Your task to perform on an android device: turn pop-ups on in chrome Image 0: 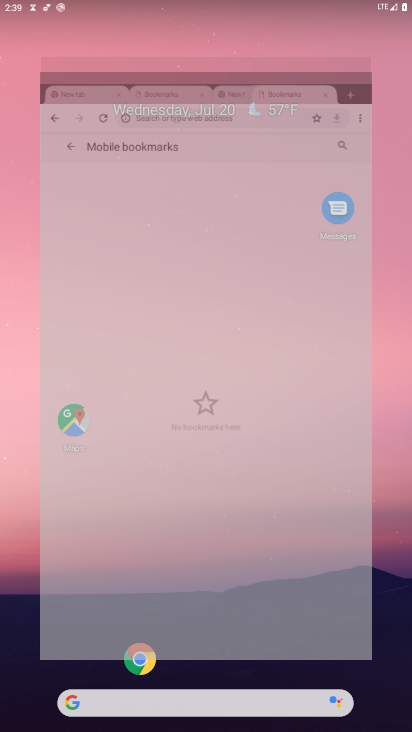
Step 0: drag from (15, 694) to (302, 119)
Your task to perform on an android device: turn pop-ups on in chrome Image 1: 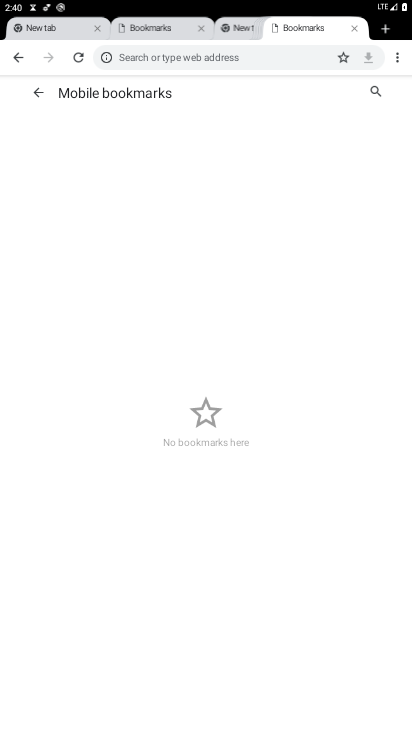
Step 1: press home button
Your task to perform on an android device: turn pop-ups on in chrome Image 2: 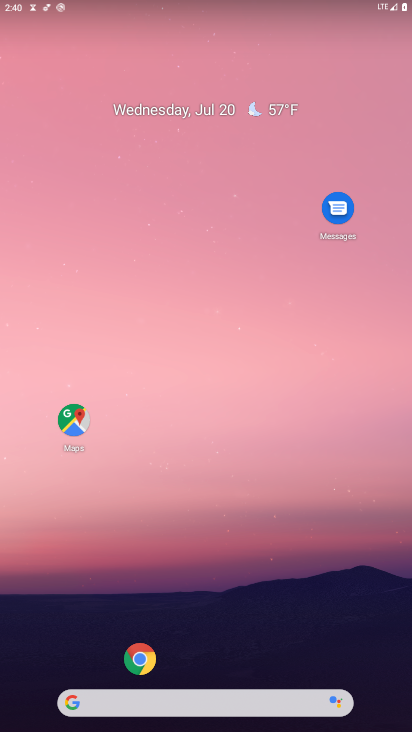
Step 2: click (135, 662)
Your task to perform on an android device: turn pop-ups on in chrome Image 3: 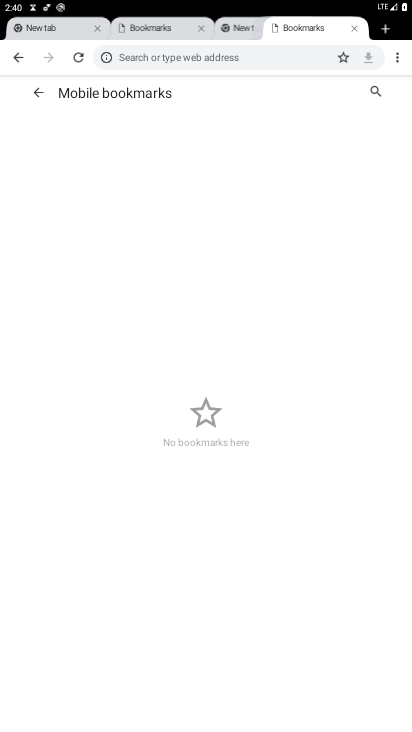
Step 3: click (397, 57)
Your task to perform on an android device: turn pop-ups on in chrome Image 4: 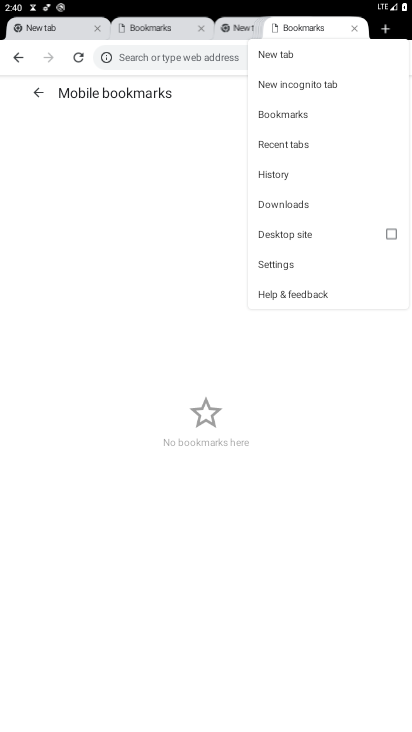
Step 4: click (297, 261)
Your task to perform on an android device: turn pop-ups on in chrome Image 5: 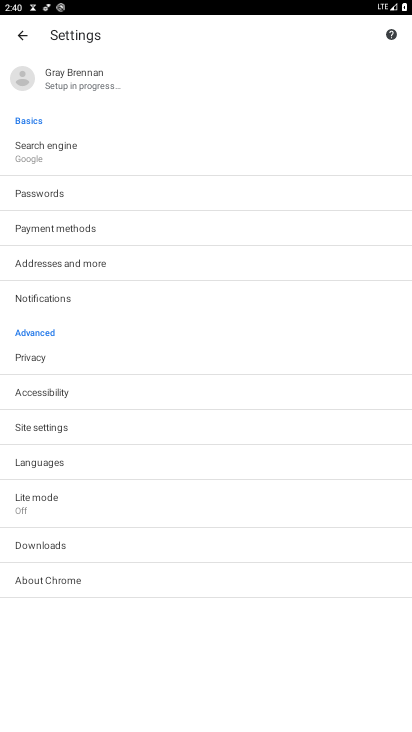
Step 5: click (69, 423)
Your task to perform on an android device: turn pop-ups on in chrome Image 6: 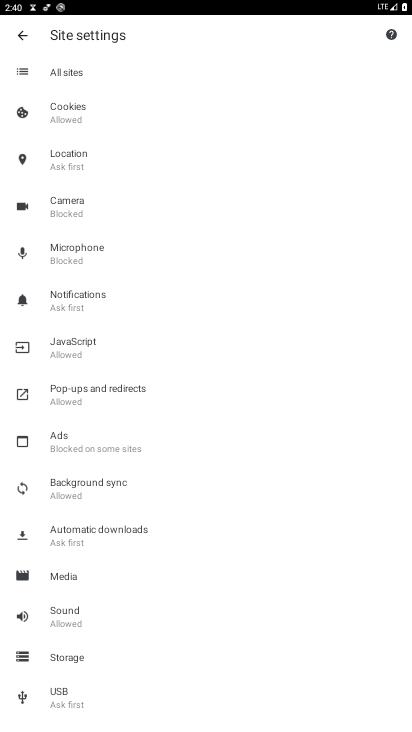
Step 6: click (76, 392)
Your task to perform on an android device: turn pop-ups on in chrome Image 7: 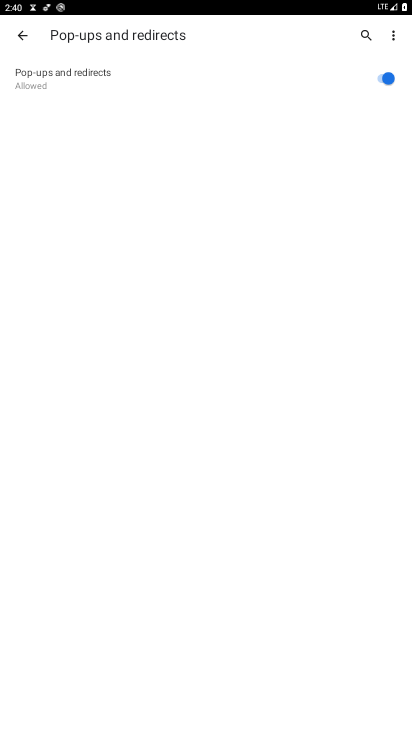
Step 7: task complete